Your task to perform on an android device: Open location settings Image 0: 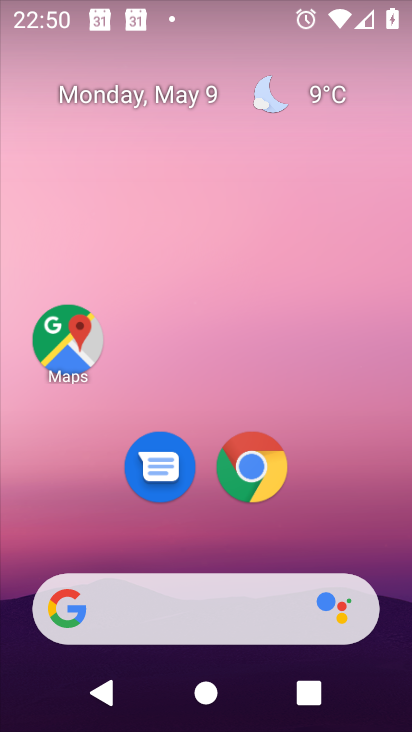
Step 0: drag from (353, 536) to (281, 15)
Your task to perform on an android device: Open location settings Image 1: 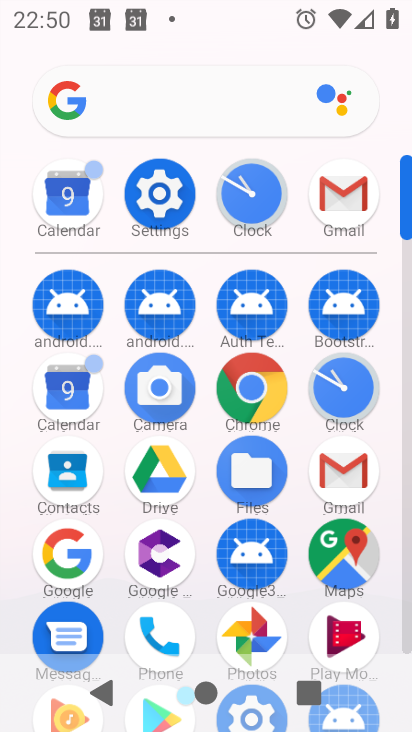
Step 1: click (161, 198)
Your task to perform on an android device: Open location settings Image 2: 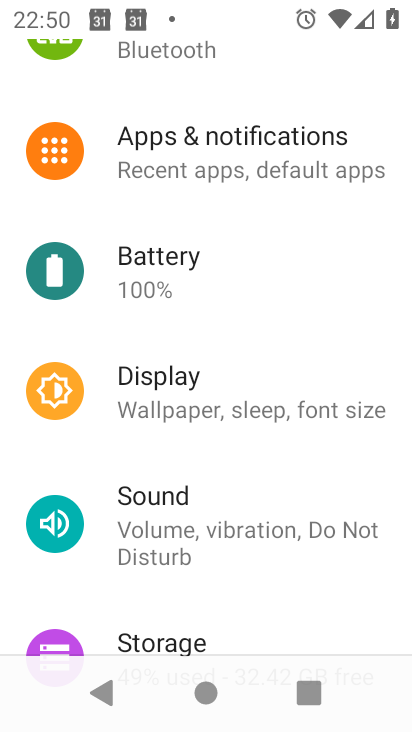
Step 2: drag from (259, 328) to (235, 101)
Your task to perform on an android device: Open location settings Image 3: 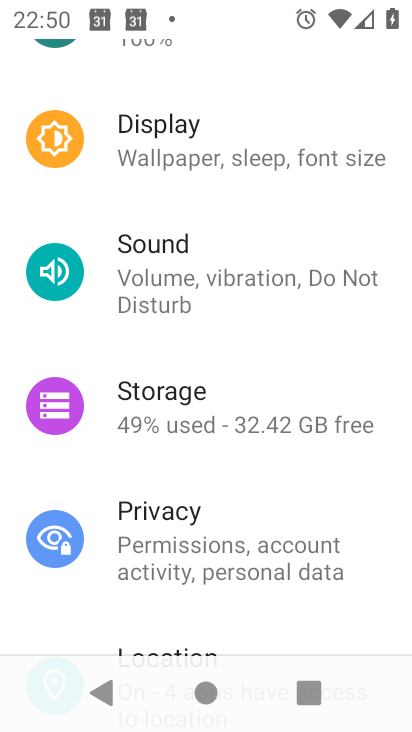
Step 3: drag from (237, 502) to (243, 251)
Your task to perform on an android device: Open location settings Image 4: 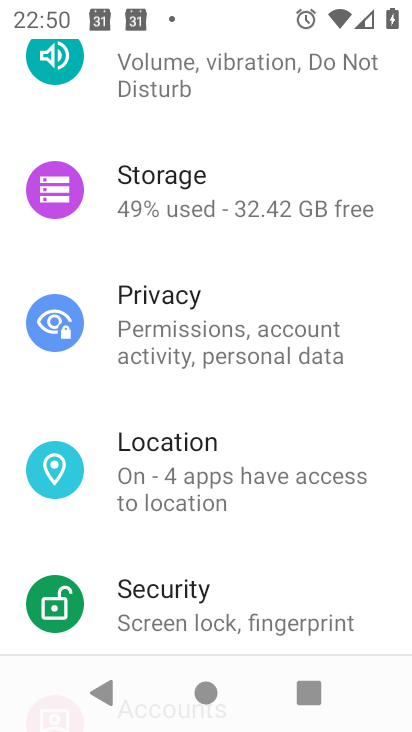
Step 4: click (198, 457)
Your task to perform on an android device: Open location settings Image 5: 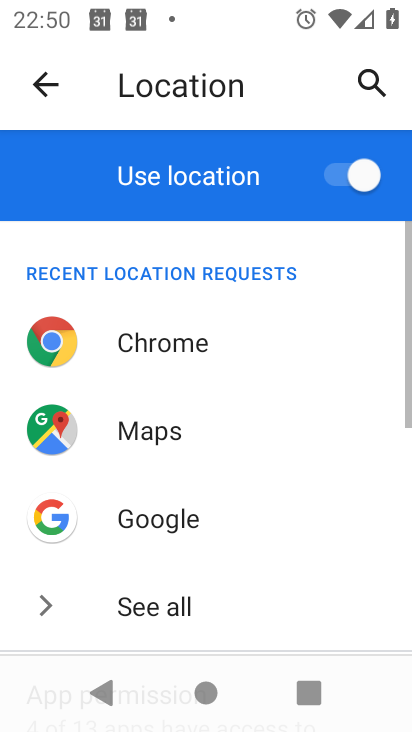
Step 5: task complete